Your task to perform on an android device: Go to network settings Image 0: 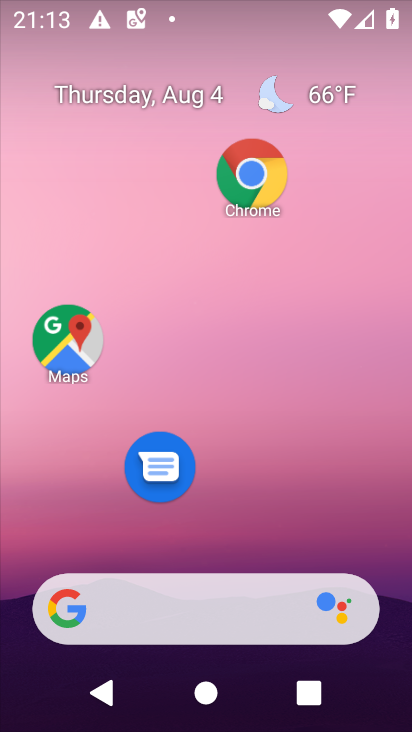
Step 0: drag from (338, 562) to (315, 70)
Your task to perform on an android device: Go to network settings Image 1: 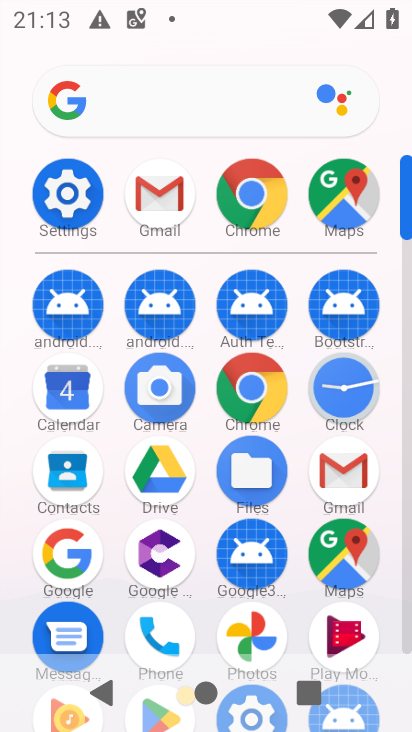
Step 1: click (62, 207)
Your task to perform on an android device: Go to network settings Image 2: 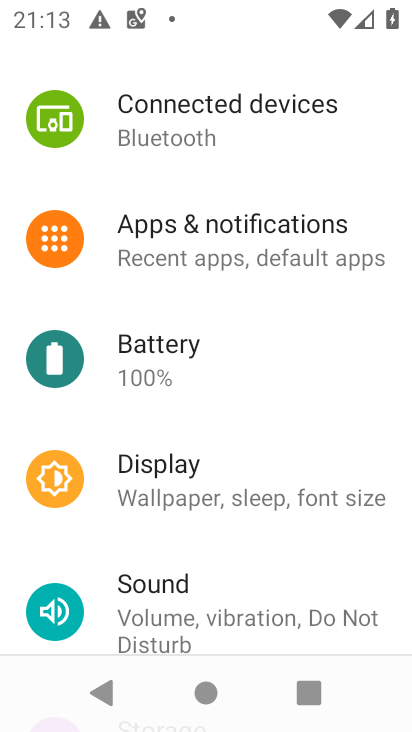
Step 2: drag from (125, 168) to (157, 290)
Your task to perform on an android device: Go to network settings Image 3: 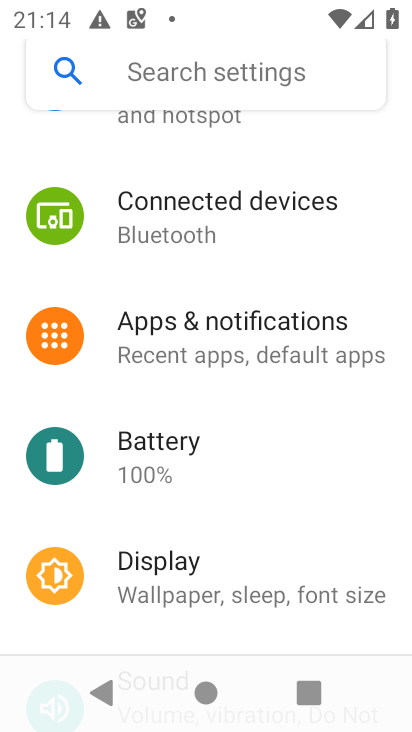
Step 3: drag from (74, 210) to (202, 717)
Your task to perform on an android device: Go to network settings Image 4: 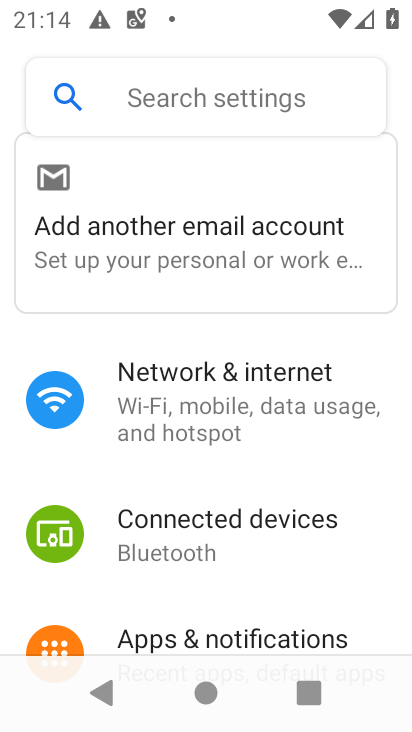
Step 4: click (48, 407)
Your task to perform on an android device: Go to network settings Image 5: 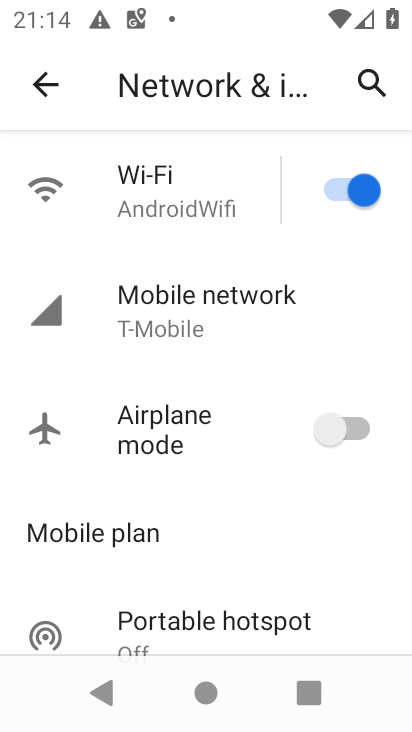
Step 5: task complete